Your task to perform on an android device: delete browsing data in the chrome app Image 0: 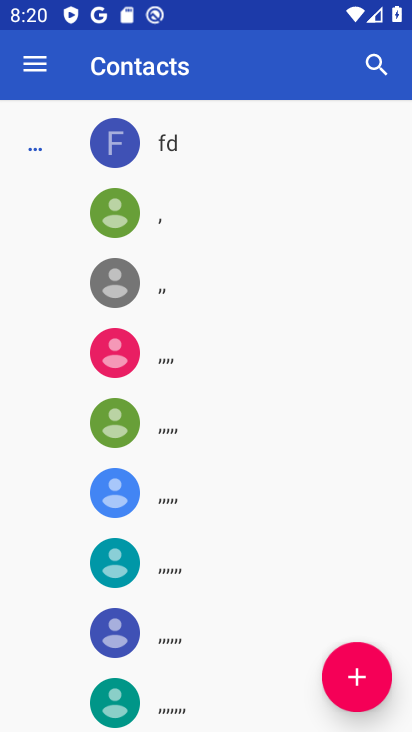
Step 0: press home button
Your task to perform on an android device: delete browsing data in the chrome app Image 1: 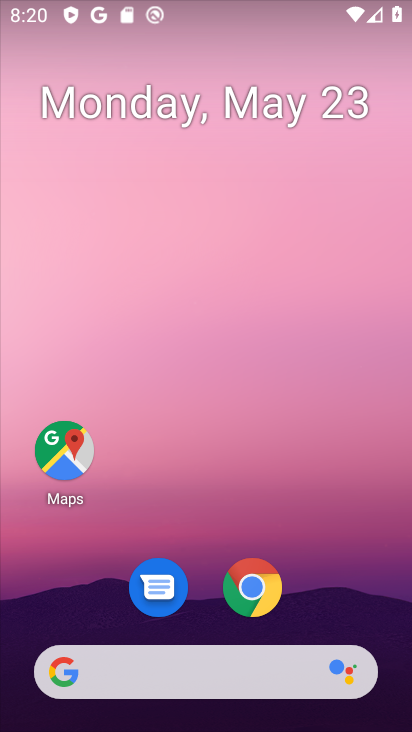
Step 1: click (259, 593)
Your task to perform on an android device: delete browsing data in the chrome app Image 2: 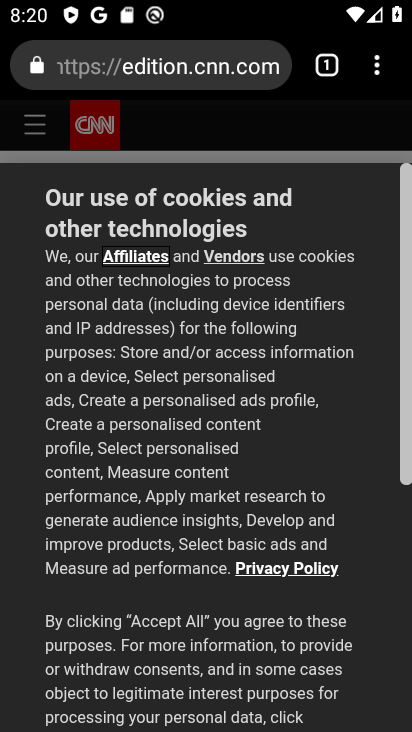
Step 2: drag from (373, 62) to (166, 359)
Your task to perform on an android device: delete browsing data in the chrome app Image 3: 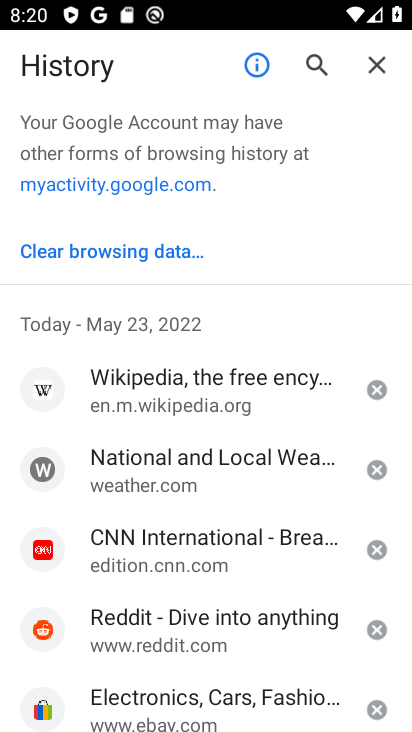
Step 3: click (120, 248)
Your task to perform on an android device: delete browsing data in the chrome app Image 4: 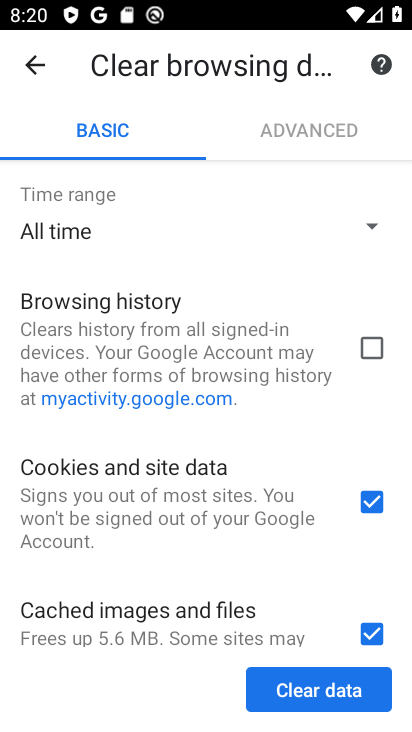
Step 4: click (378, 339)
Your task to perform on an android device: delete browsing data in the chrome app Image 5: 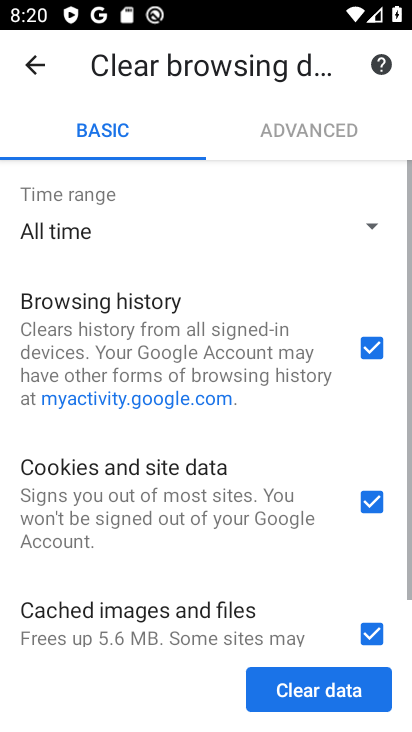
Step 5: click (292, 693)
Your task to perform on an android device: delete browsing data in the chrome app Image 6: 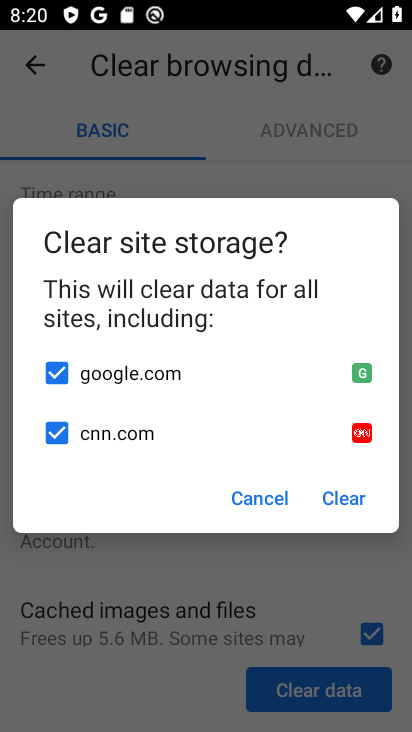
Step 6: click (333, 493)
Your task to perform on an android device: delete browsing data in the chrome app Image 7: 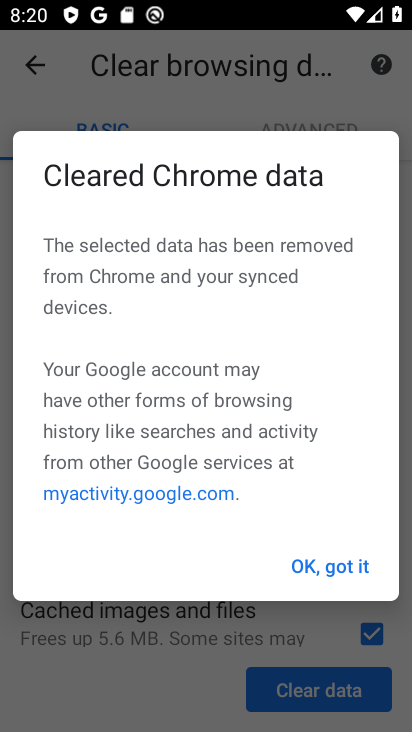
Step 7: click (331, 562)
Your task to perform on an android device: delete browsing data in the chrome app Image 8: 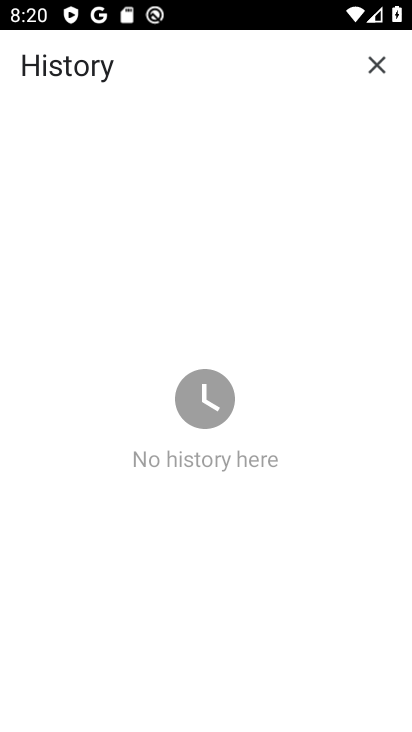
Step 8: task complete